Your task to perform on an android device: When is my next meeting? Image 0: 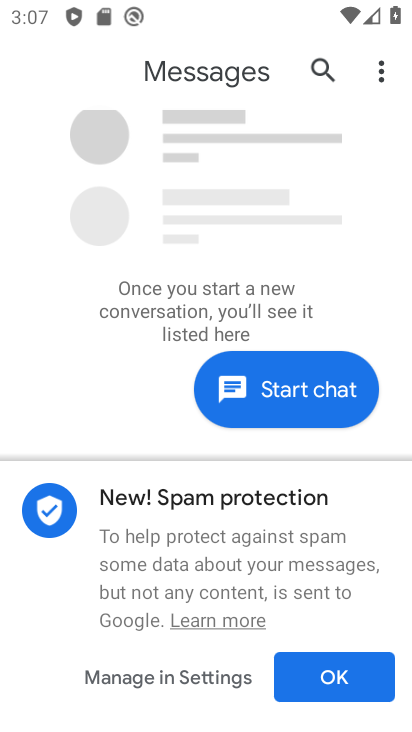
Step 0: press home button
Your task to perform on an android device: When is my next meeting? Image 1: 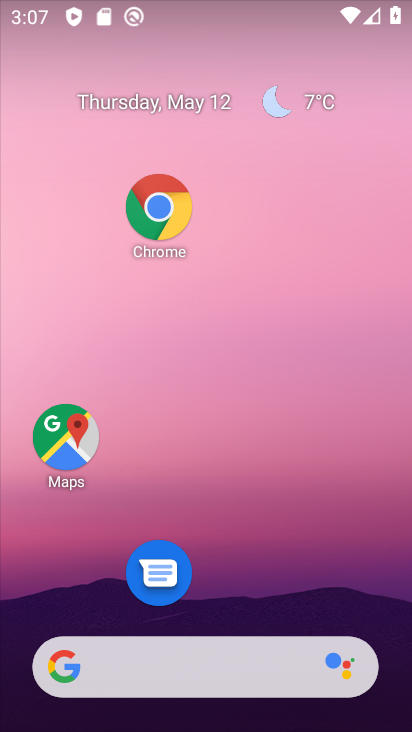
Step 1: drag from (221, 584) to (277, 94)
Your task to perform on an android device: When is my next meeting? Image 2: 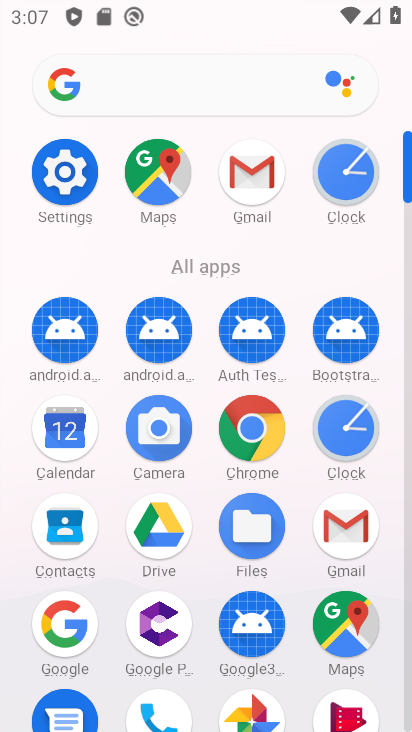
Step 2: click (78, 430)
Your task to perform on an android device: When is my next meeting? Image 3: 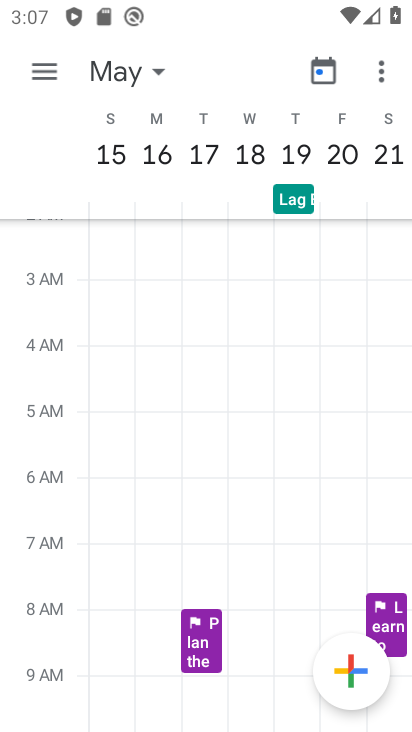
Step 3: click (34, 79)
Your task to perform on an android device: When is my next meeting? Image 4: 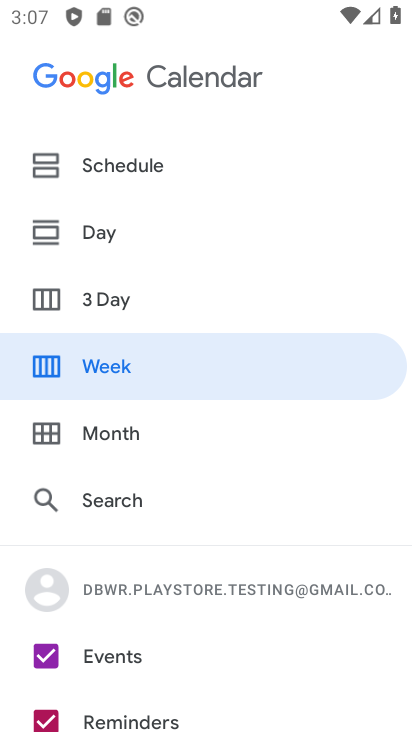
Step 4: click (105, 173)
Your task to perform on an android device: When is my next meeting? Image 5: 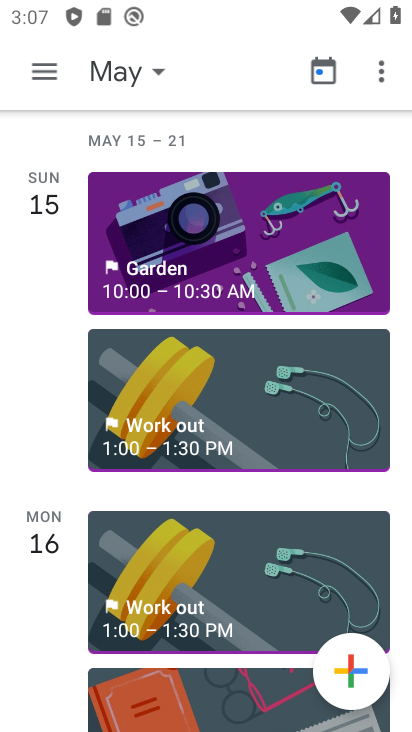
Step 5: task complete